Your task to perform on an android device: Check the news Image 0: 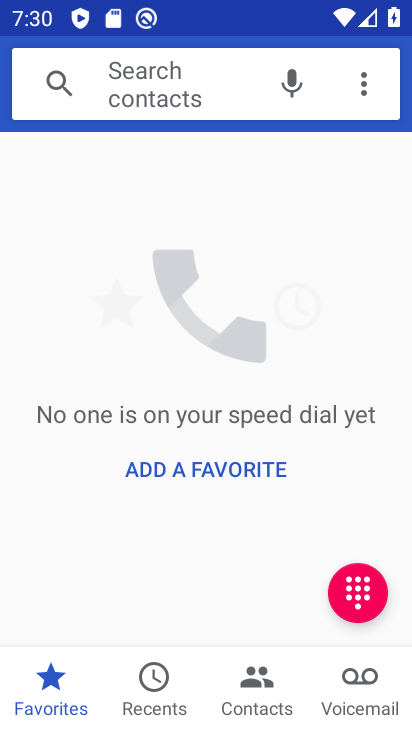
Step 0: press home button
Your task to perform on an android device: Check the news Image 1: 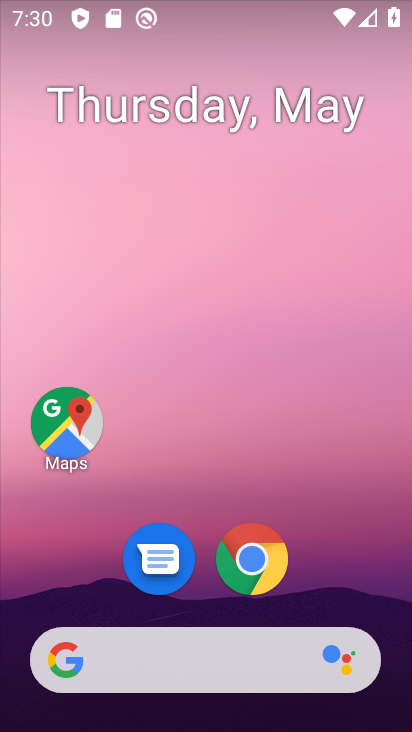
Step 1: click (245, 561)
Your task to perform on an android device: Check the news Image 2: 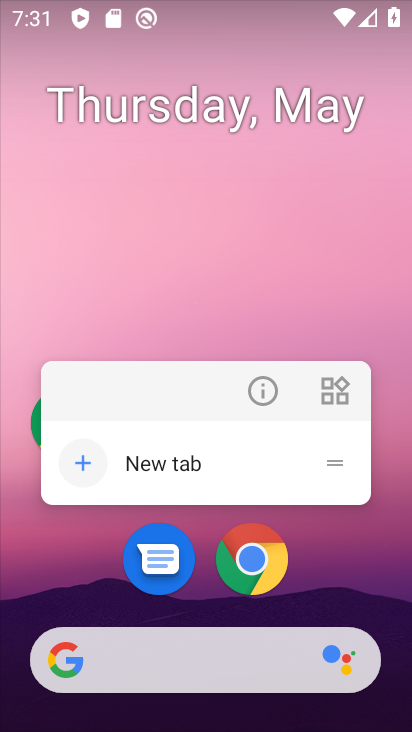
Step 2: click (248, 557)
Your task to perform on an android device: Check the news Image 3: 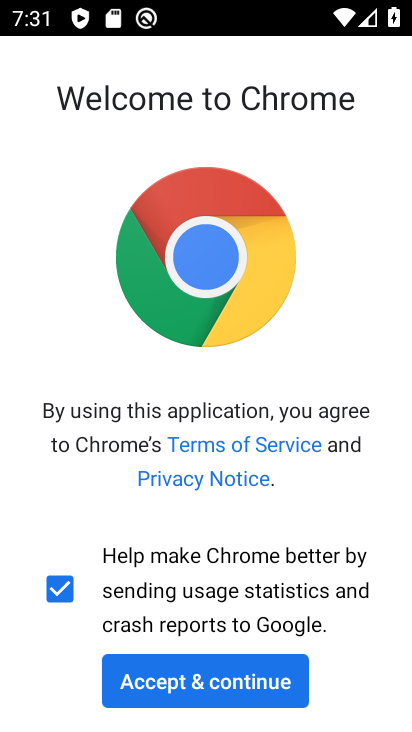
Step 3: click (186, 689)
Your task to perform on an android device: Check the news Image 4: 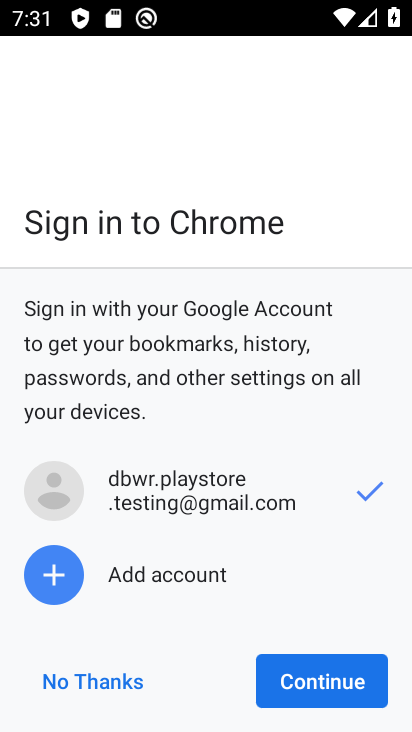
Step 4: click (340, 672)
Your task to perform on an android device: Check the news Image 5: 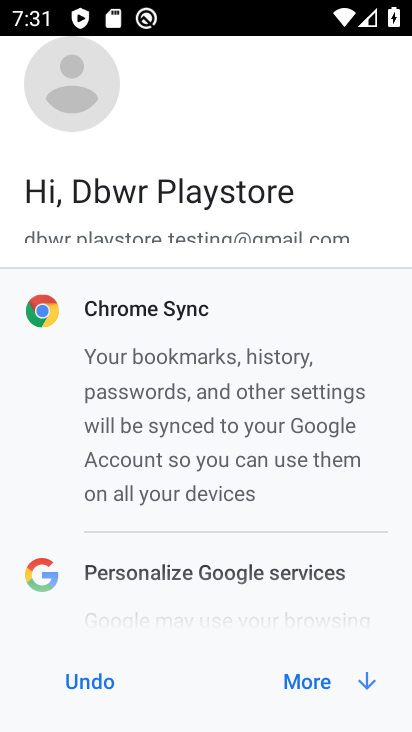
Step 5: click (322, 687)
Your task to perform on an android device: Check the news Image 6: 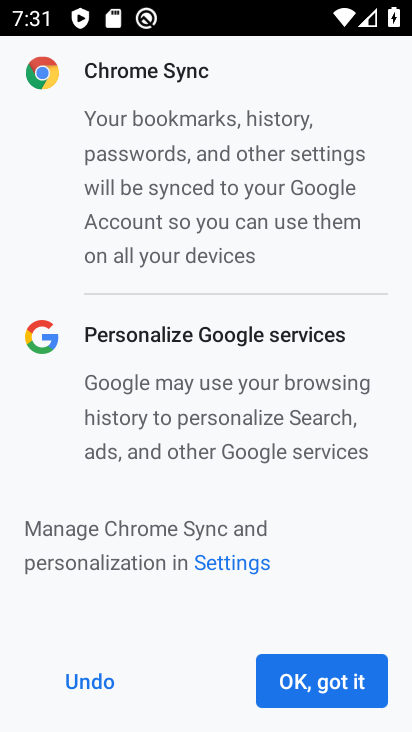
Step 6: click (320, 680)
Your task to perform on an android device: Check the news Image 7: 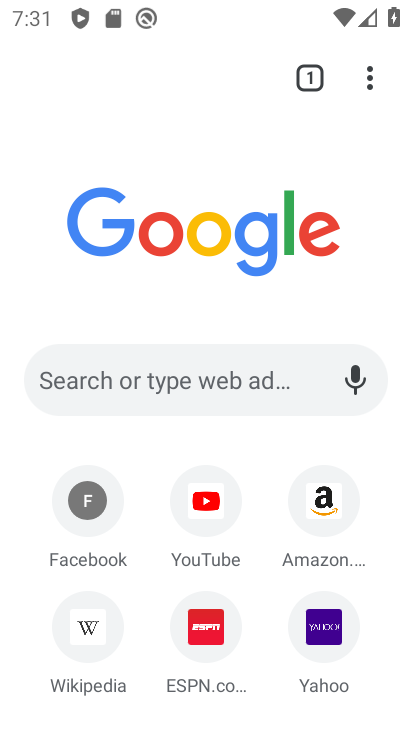
Step 7: click (241, 382)
Your task to perform on an android device: Check the news Image 8: 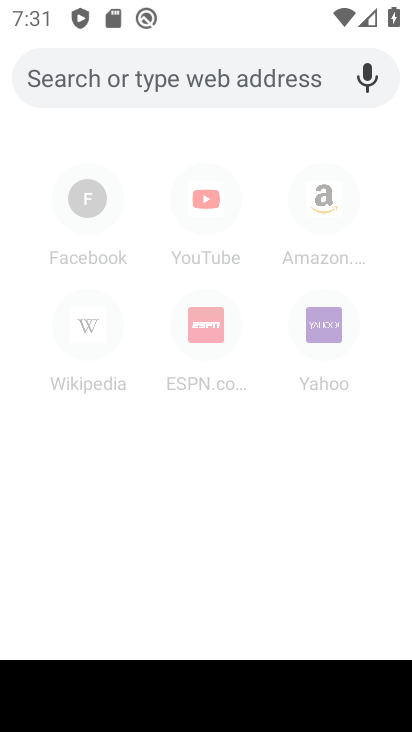
Step 8: type "Check the news"
Your task to perform on an android device: Check the news Image 9: 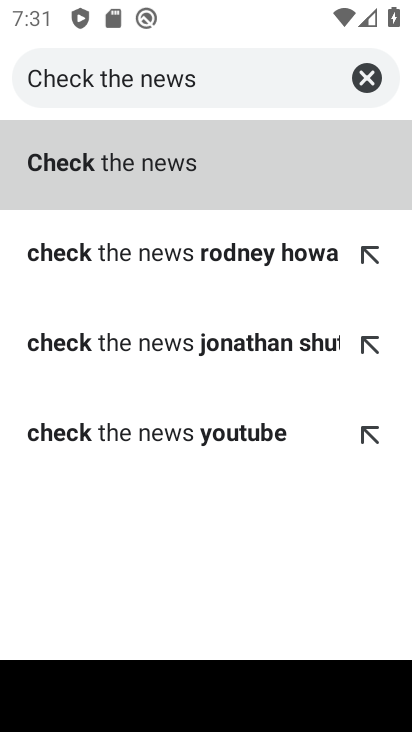
Step 9: click (124, 160)
Your task to perform on an android device: Check the news Image 10: 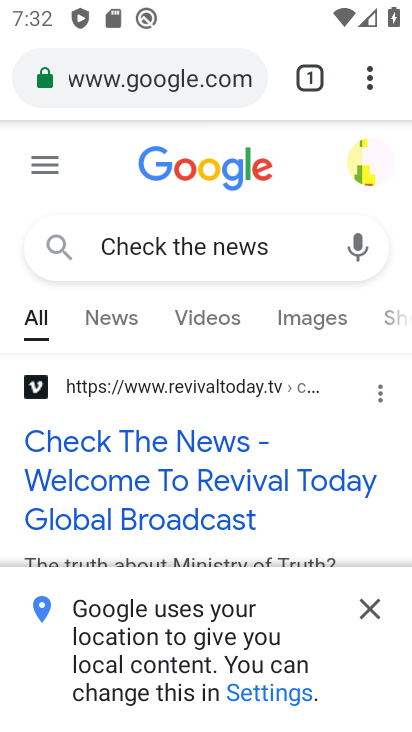
Step 10: task complete